Your task to perform on an android device: Open calendar and show me the second week of next month Image 0: 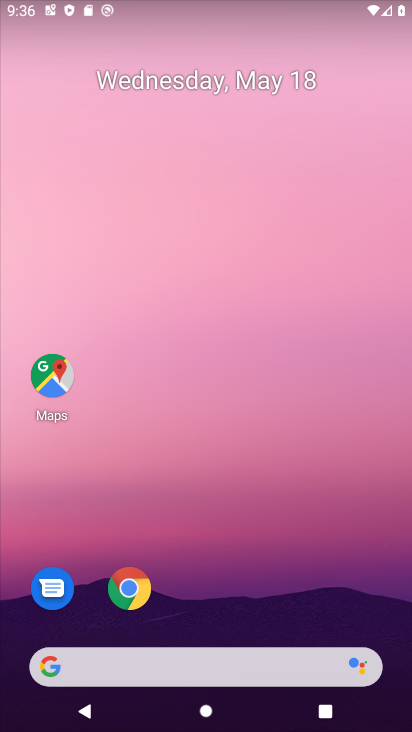
Step 0: drag from (305, 682) to (273, 170)
Your task to perform on an android device: Open calendar and show me the second week of next month Image 1: 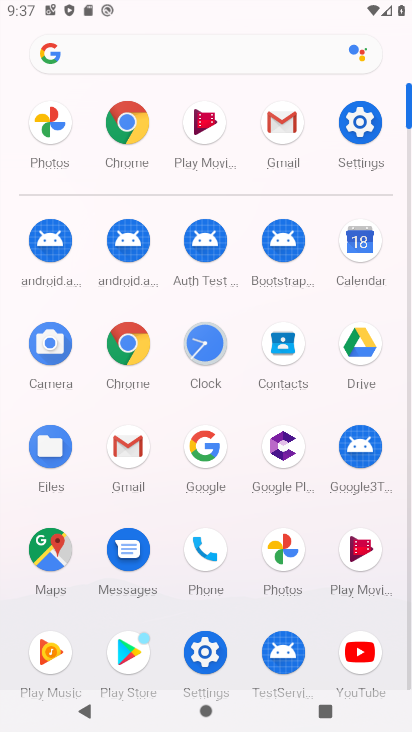
Step 1: click (364, 244)
Your task to perform on an android device: Open calendar and show me the second week of next month Image 2: 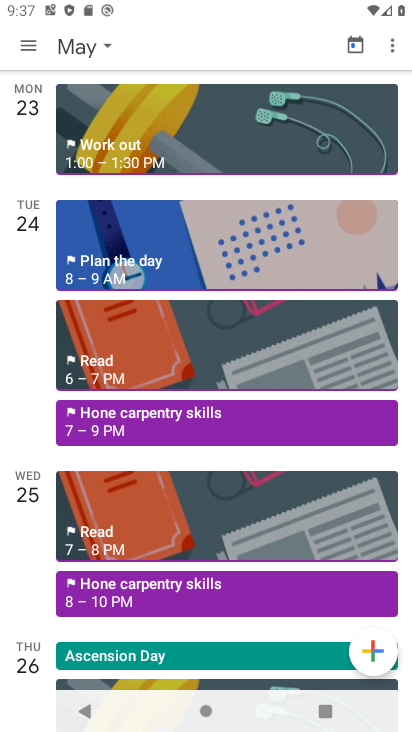
Step 2: click (23, 36)
Your task to perform on an android device: Open calendar and show me the second week of next month Image 3: 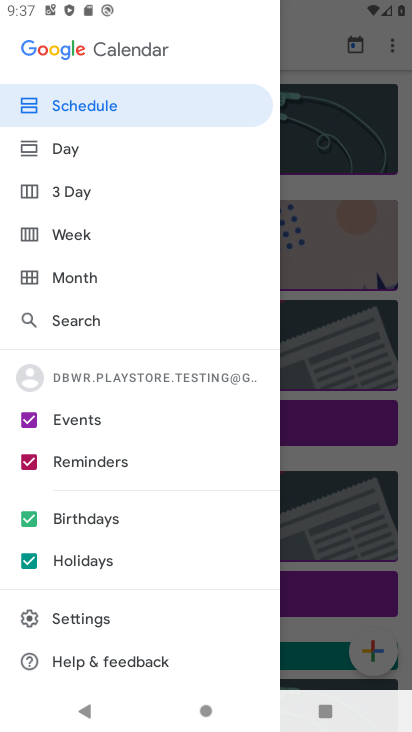
Step 3: click (102, 275)
Your task to perform on an android device: Open calendar and show me the second week of next month Image 4: 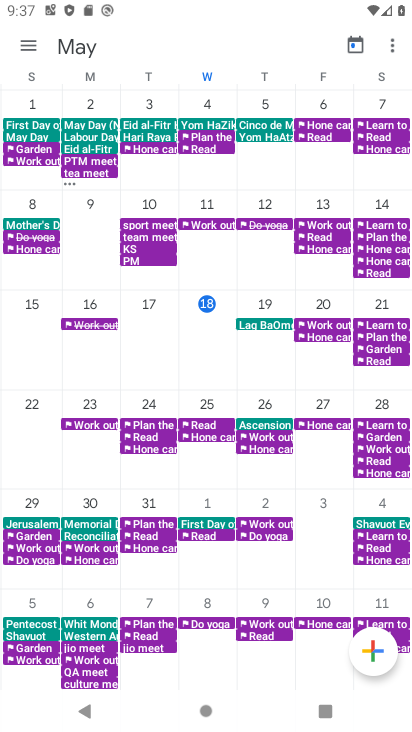
Step 4: drag from (367, 420) to (0, 360)
Your task to perform on an android device: Open calendar and show me the second week of next month Image 5: 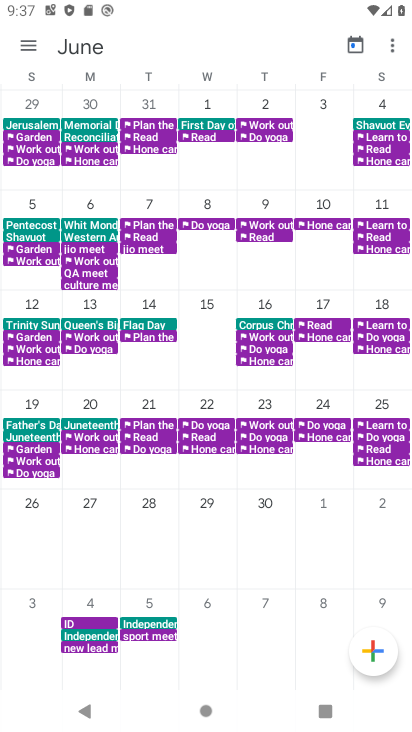
Step 5: click (89, 226)
Your task to perform on an android device: Open calendar and show me the second week of next month Image 6: 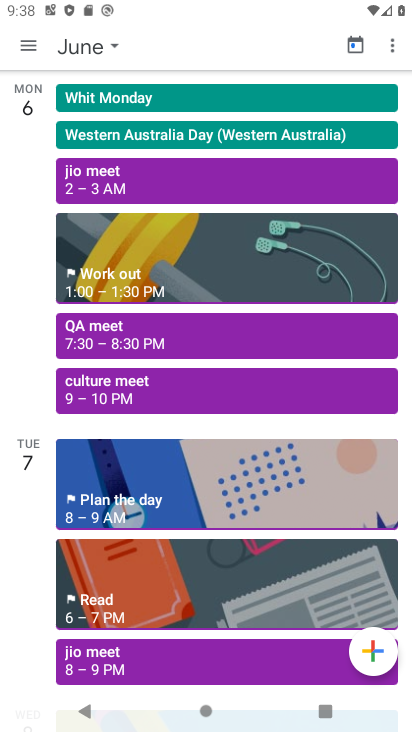
Step 6: task complete